Your task to perform on an android device: Clear the cart on amazon.com. Image 0: 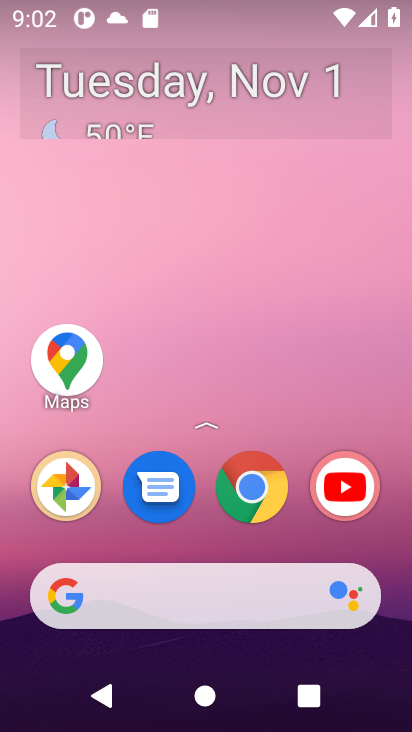
Step 0: press home button
Your task to perform on an android device: Clear the cart on amazon.com. Image 1: 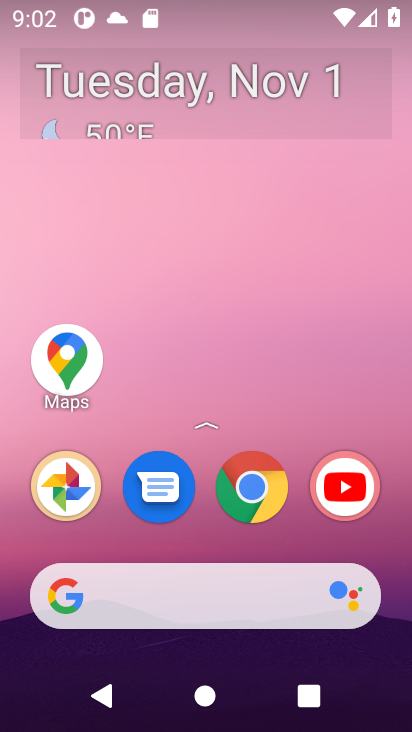
Step 1: drag from (206, 455) to (263, 65)
Your task to perform on an android device: Clear the cart on amazon.com. Image 2: 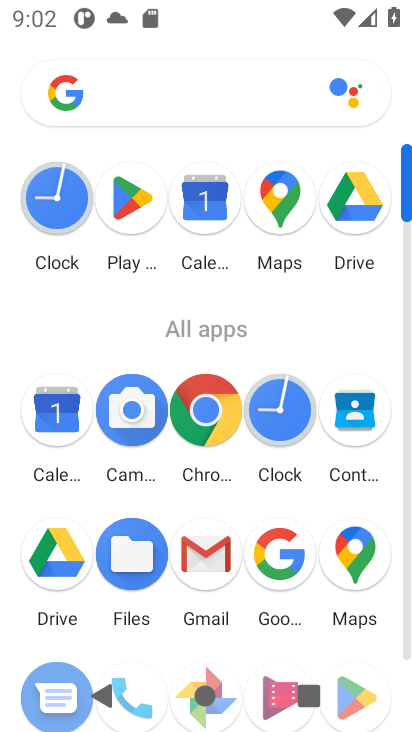
Step 2: click (199, 408)
Your task to perform on an android device: Clear the cart on amazon.com. Image 3: 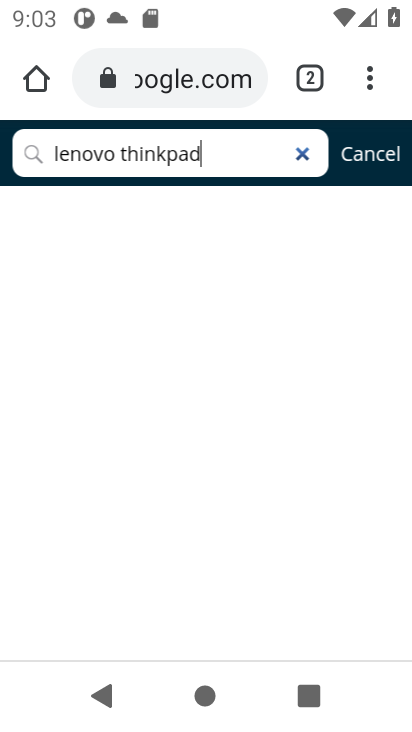
Step 3: click (159, 78)
Your task to perform on an android device: Clear the cart on amazon.com. Image 4: 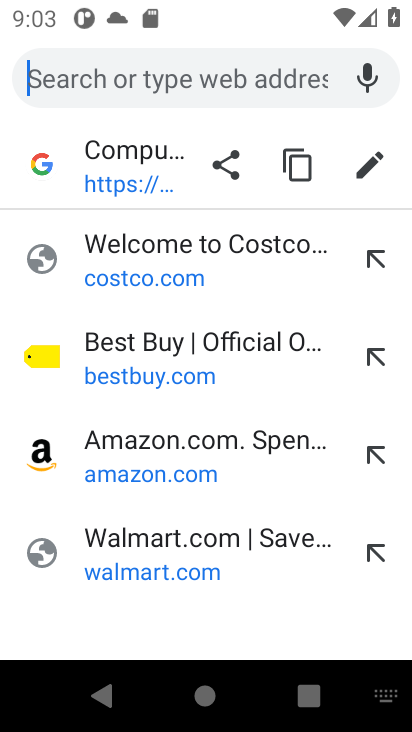
Step 4: click (137, 455)
Your task to perform on an android device: Clear the cart on amazon.com. Image 5: 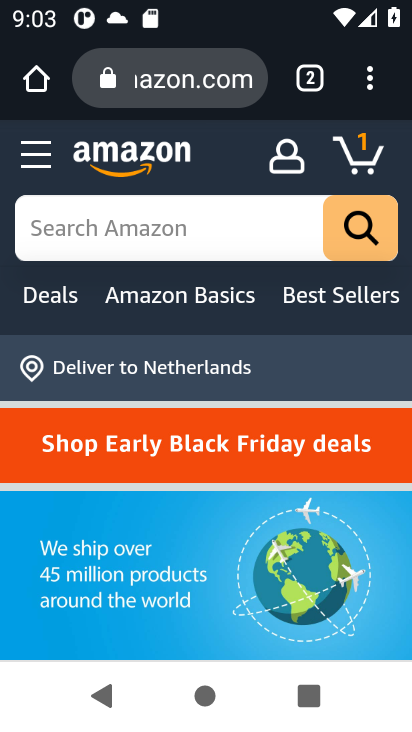
Step 5: click (171, 228)
Your task to perform on an android device: Clear the cart on amazon.com. Image 6: 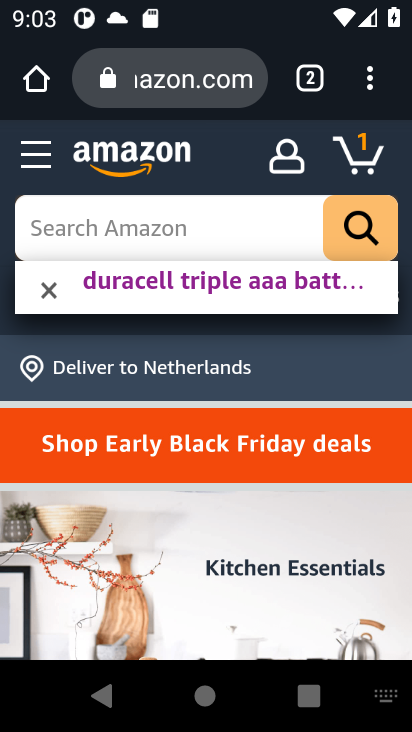
Step 6: click (362, 145)
Your task to perform on an android device: Clear the cart on amazon.com. Image 7: 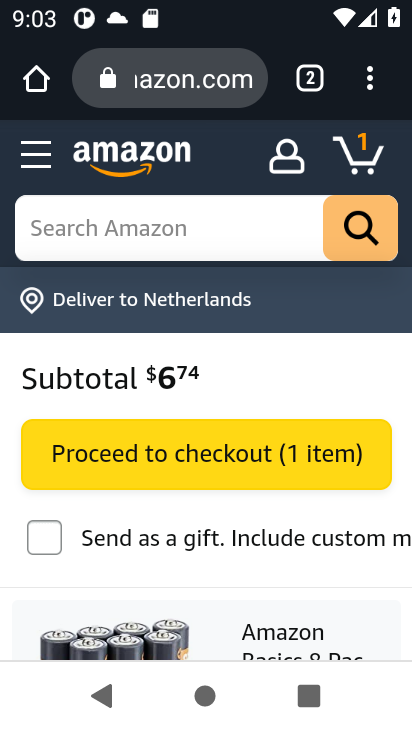
Step 7: drag from (256, 574) to (275, 128)
Your task to perform on an android device: Clear the cart on amazon.com. Image 8: 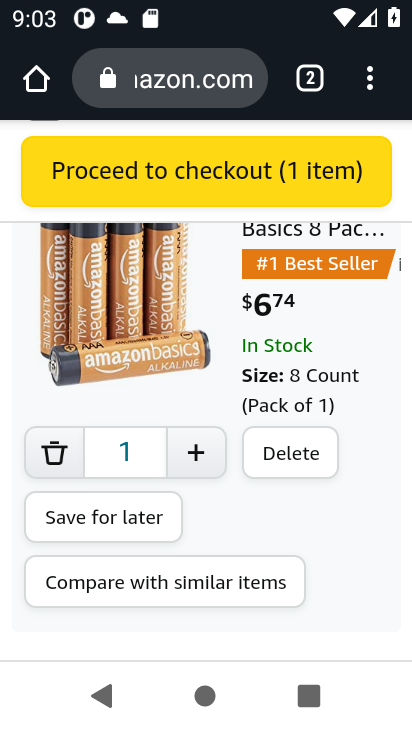
Step 8: click (55, 458)
Your task to perform on an android device: Clear the cart on amazon.com. Image 9: 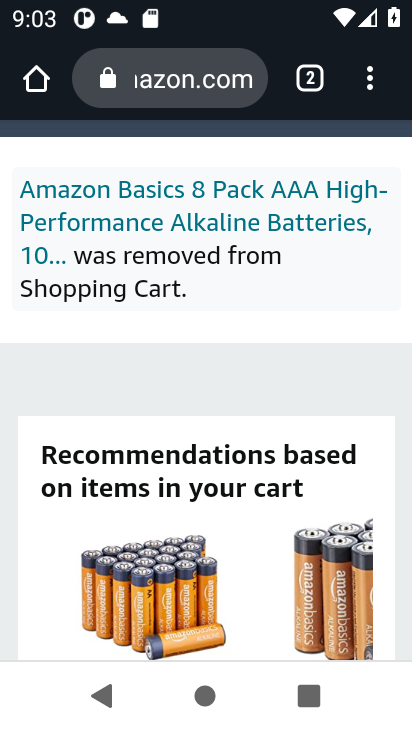
Step 9: task complete